Your task to perform on an android device: open a bookmark in the chrome app Image 0: 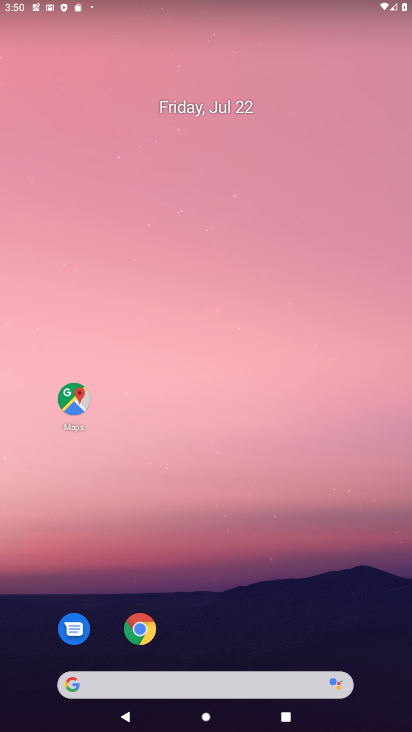
Step 0: click (144, 627)
Your task to perform on an android device: open a bookmark in the chrome app Image 1: 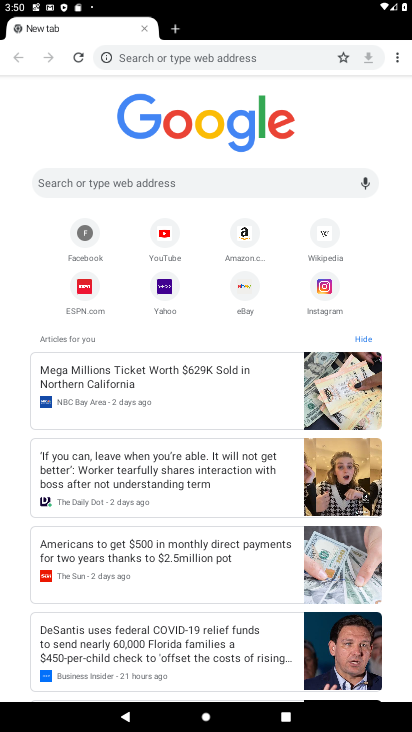
Step 1: click (395, 47)
Your task to perform on an android device: open a bookmark in the chrome app Image 2: 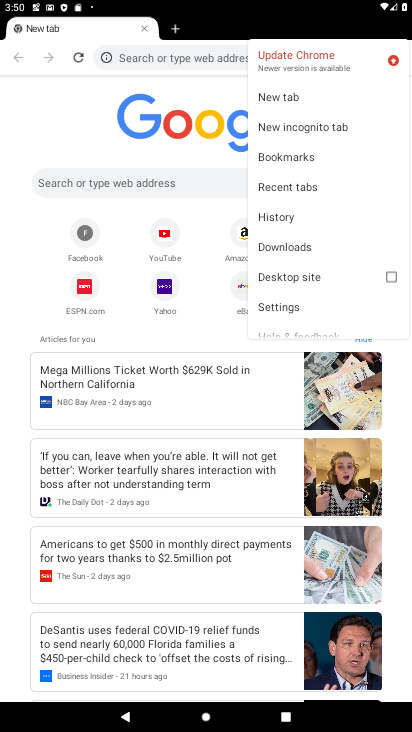
Step 2: click (279, 160)
Your task to perform on an android device: open a bookmark in the chrome app Image 3: 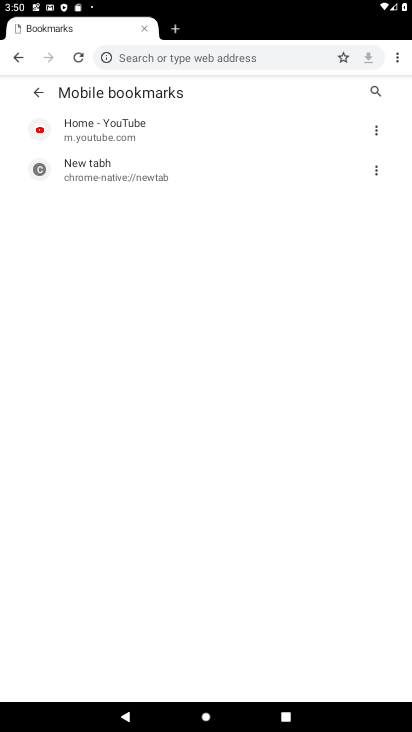
Step 3: click (126, 133)
Your task to perform on an android device: open a bookmark in the chrome app Image 4: 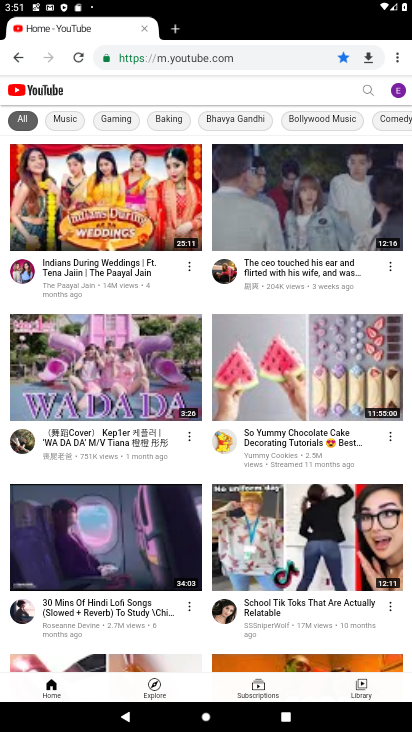
Step 4: task complete